Your task to perform on an android device: Do I have any events today? Image 0: 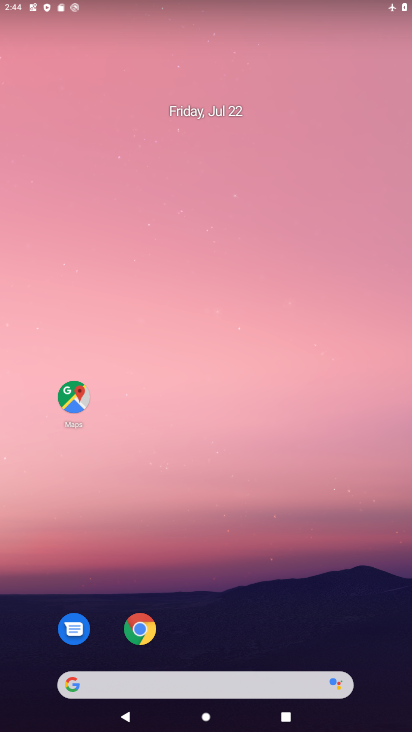
Step 0: drag from (182, 645) to (150, 207)
Your task to perform on an android device: Do I have any events today? Image 1: 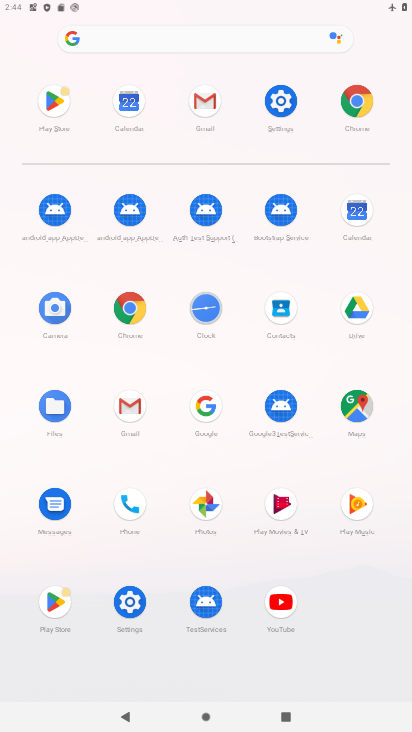
Step 1: click (351, 222)
Your task to perform on an android device: Do I have any events today? Image 2: 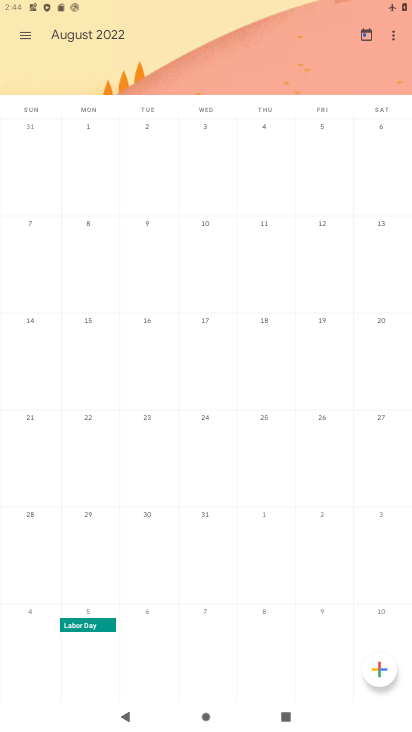
Step 2: drag from (35, 239) to (405, 281)
Your task to perform on an android device: Do I have any events today? Image 3: 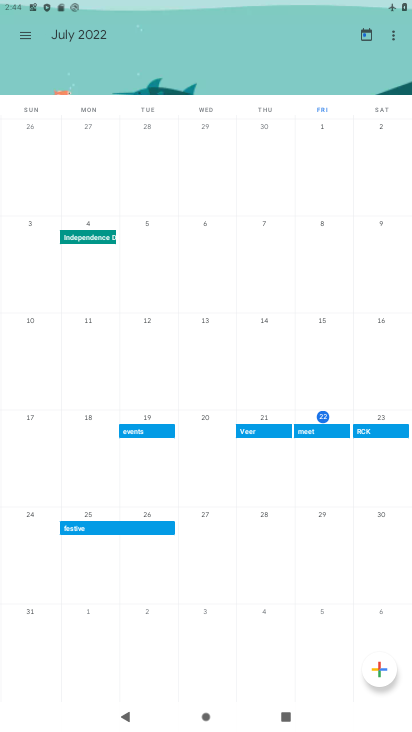
Step 3: click (321, 416)
Your task to perform on an android device: Do I have any events today? Image 4: 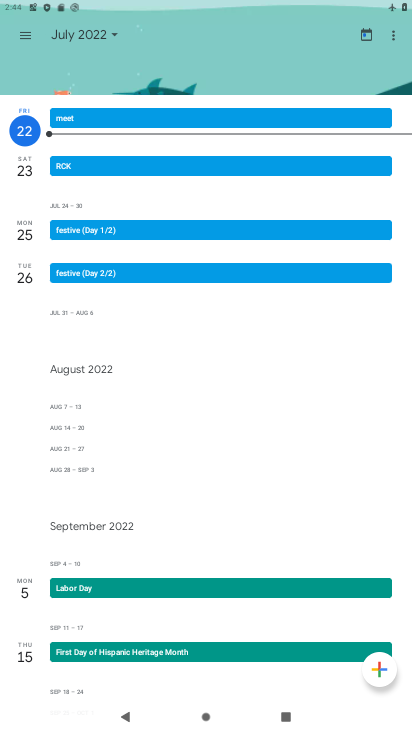
Step 4: task complete